Your task to perform on an android device: Open Yahoo.com Image 0: 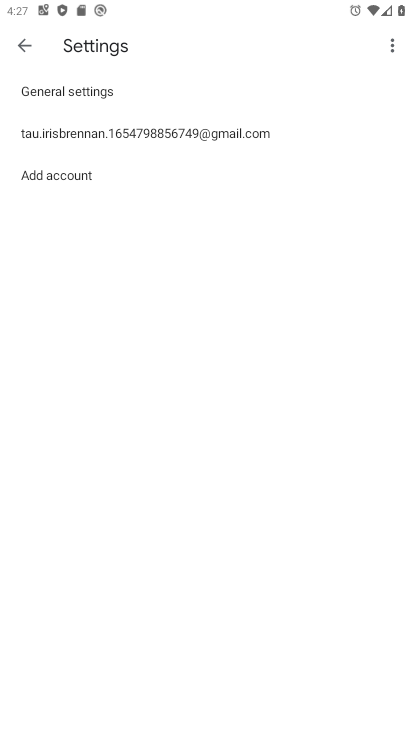
Step 0: press home button
Your task to perform on an android device: Open Yahoo.com Image 1: 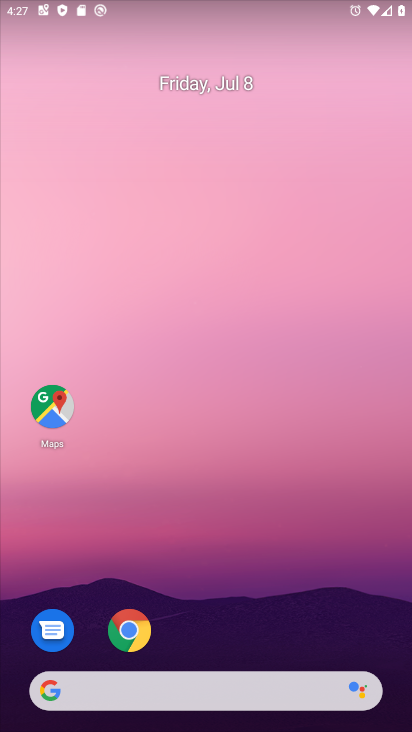
Step 1: click (129, 627)
Your task to perform on an android device: Open Yahoo.com Image 2: 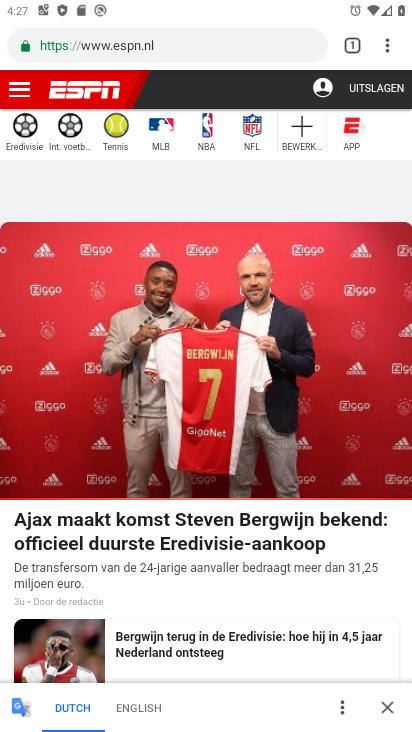
Step 2: click (286, 55)
Your task to perform on an android device: Open Yahoo.com Image 3: 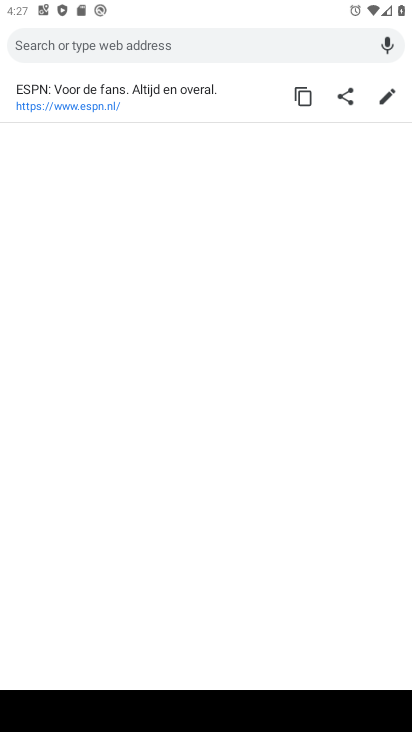
Step 3: type "Yahoo.com"
Your task to perform on an android device: Open Yahoo.com Image 4: 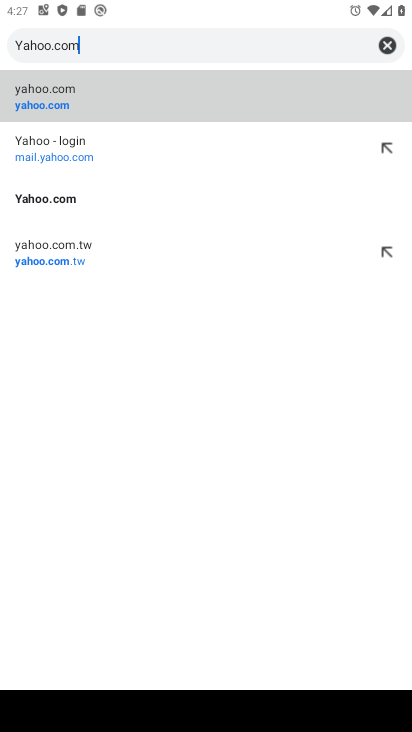
Step 4: click (24, 199)
Your task to perform on an android device: Open Yahoo.com Image 5: 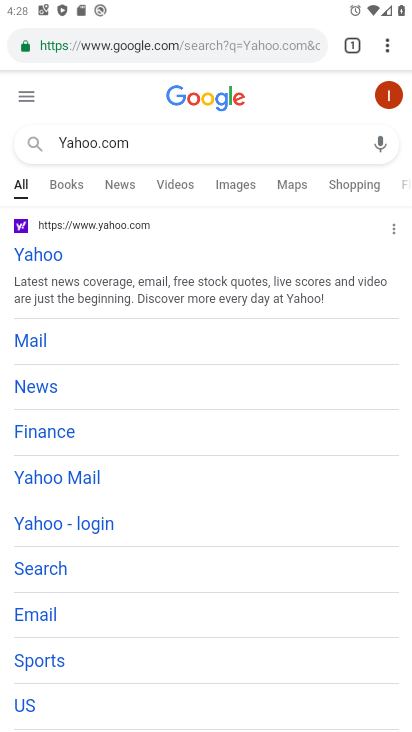
Step 5: click (31, 253)
Your task to perform on an android device: Open Yahoo.com Image 6: 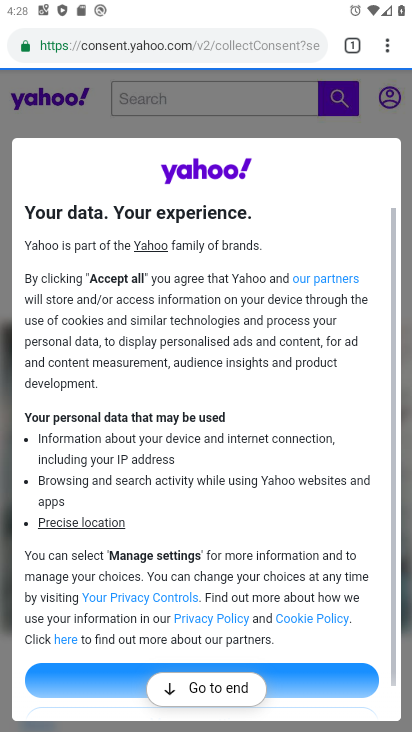
Step 6: click (198, 683)
Your task to perform on an android device: Open Yahoo.com Image 7: 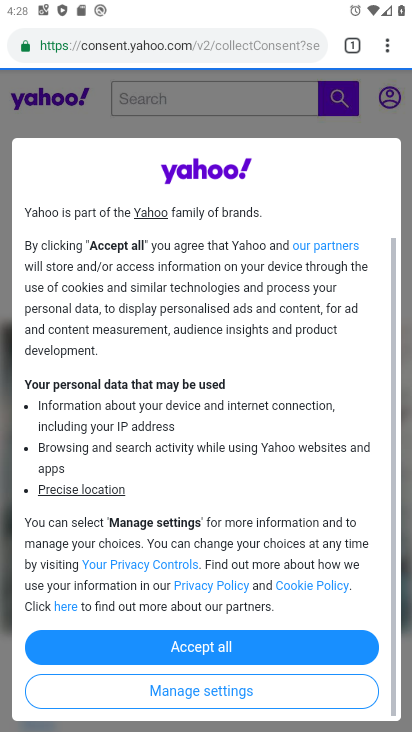
Step 7: click (203, 653)
Your task to perform on an android device: Open Yahoo.com Image 8: 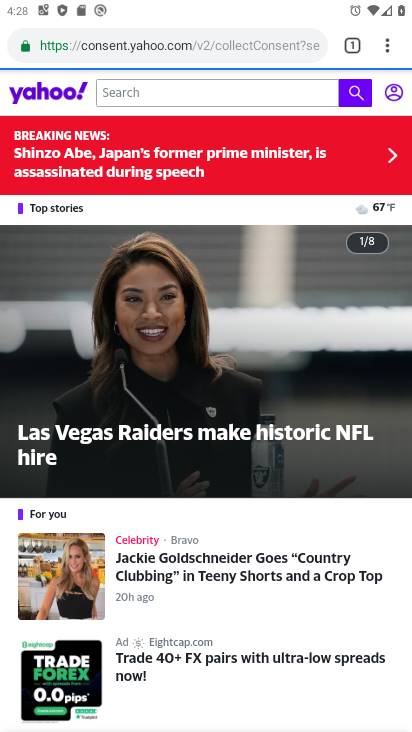
Step 8: task complete